Your task to perform on an android device: allow cookies in the chrome app Image 0: 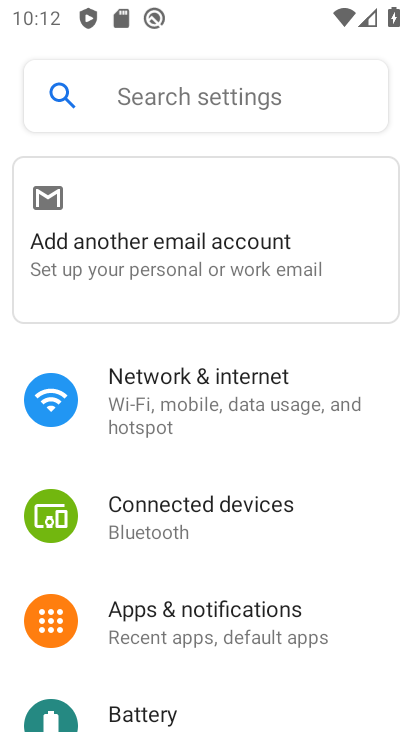
Step 0: press home button
Your task to perform on an android device: allow cookies in the chrome app Image 1: 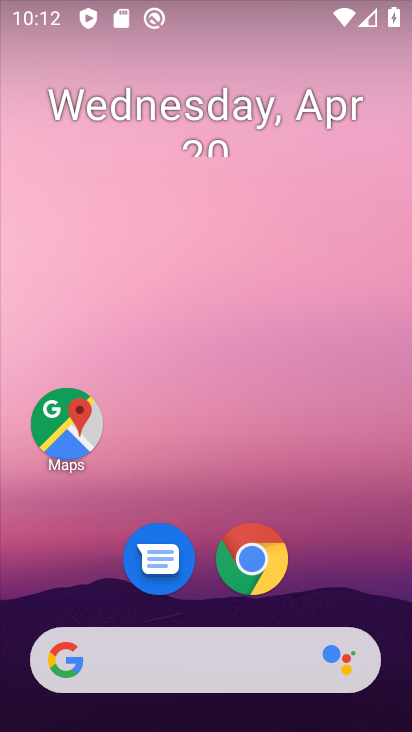
Step 1: click (248, 563)
Your task to perform on an android device: allow cookies in the chrome app Image 2: 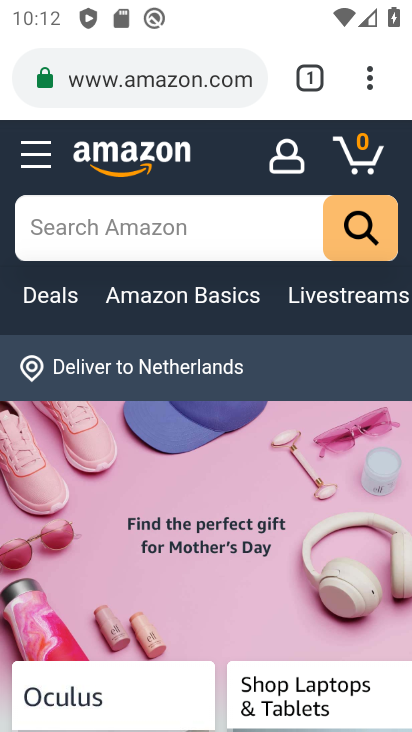
Step 2: drag from (370, 81) to (191, 611)
Your task to perform on an android device: allow cookies in the chrome app Image 3: 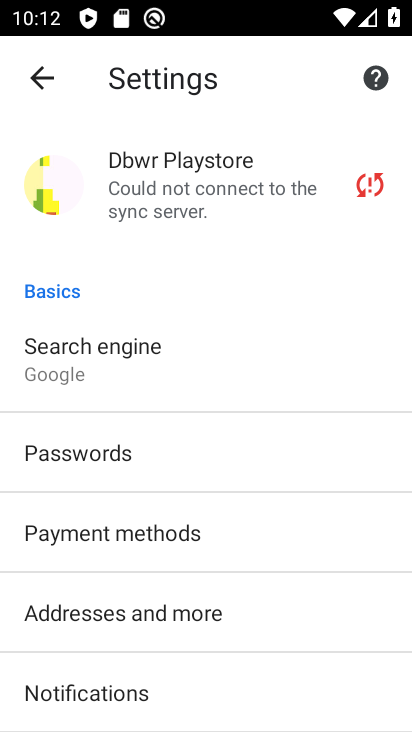
Step 3: drag from (194, 679) to (156, 381)
Your task to perform on an android device: allow cookies in the chrome app Image 4: 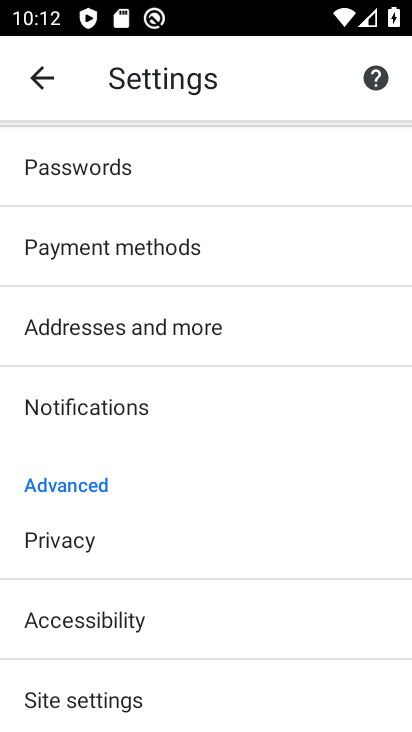
Step 4: click (168, 692)
Your task to perform on an android device: allow cookies in the chrome app Image 5: 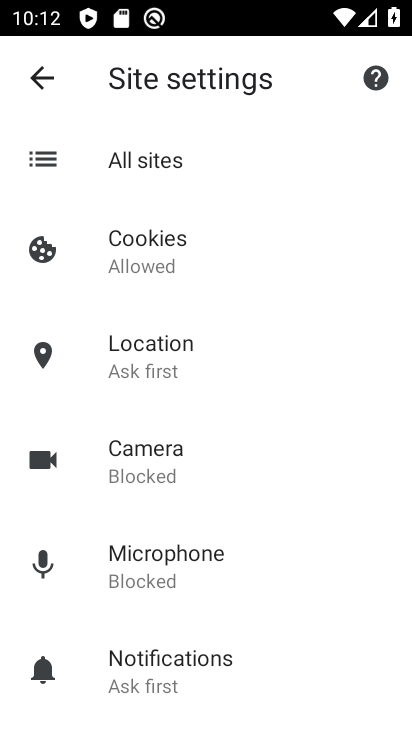
Step 5: click (161, 252)
Your task to perform on an android device: allow cookies in the chrome app Image 6: 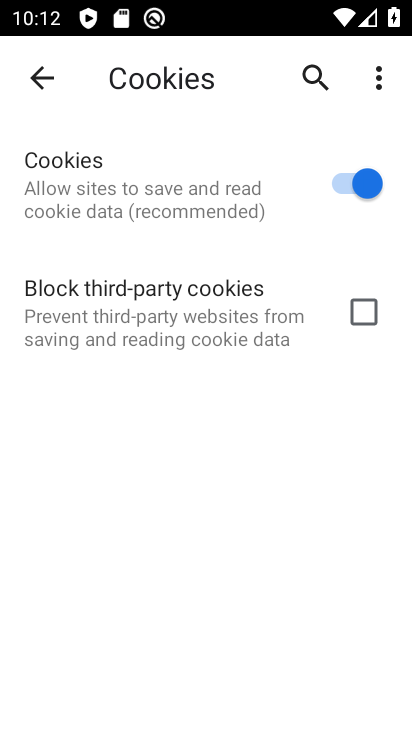
Step 6: task complete